Your task to perform on an android device: open a bookmark in the chrome app Image 0: 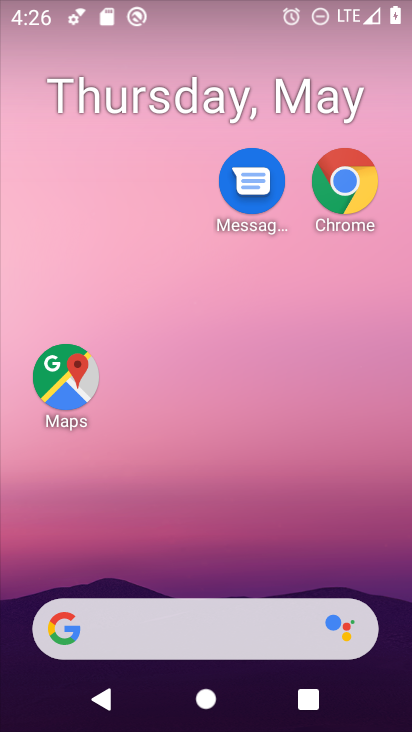
Step 0: drag from (212, 548) to (261, 1)
Your task to perform on an android device: open a bookmark in the chrome app Image 1: 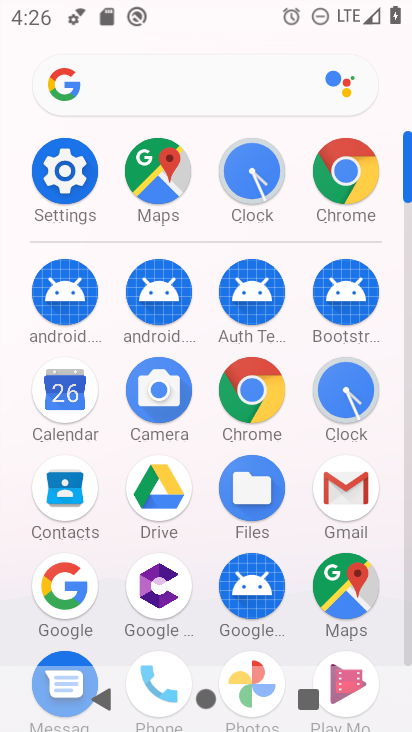
Step 1: click (244, 398)
Your task to perform on an android device: open a bookmark in the chrome app Image 2: 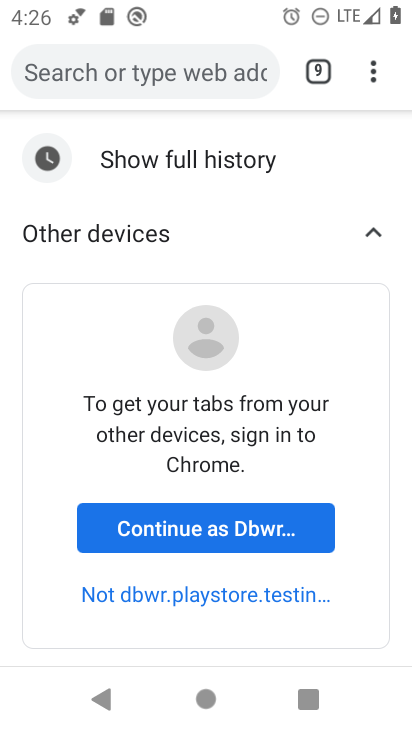
Step 2: task complete